Your task to perform on an android device: open app "Upside-Cash back on gas & food" (install if not already installed) and go to login screen Image 0: 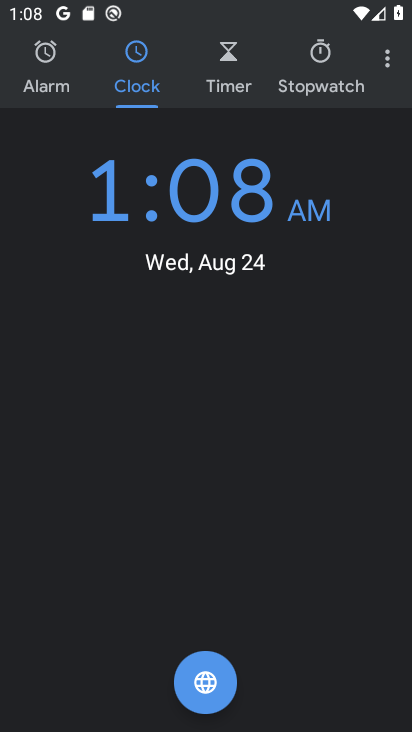
Step 0: press home button
Your task to perform on an android device: open app "Upside-Cash back on gas & food" (install if not already installed) and go to login screen Image 1: 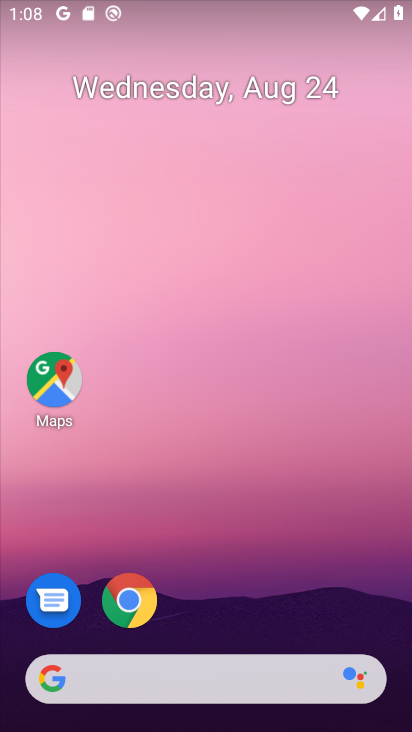
Step 1: drag from (210, 635) to (204, 52)
Your task to perform on an android device: open app "Upside-Cash back on gas & food" (install if not already installed) and go to login screen Image 2: 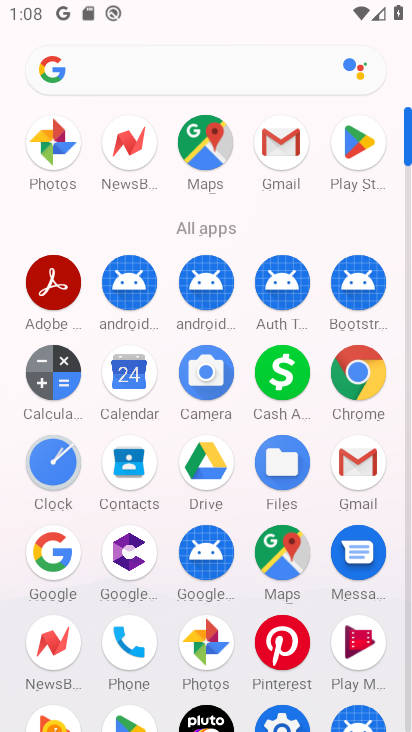
Step 2: click (357, 138)
Your task to perform on an android device: open app "Upside-Cash back on gas & food" (install if not already installed) and go to login screen Image 3: 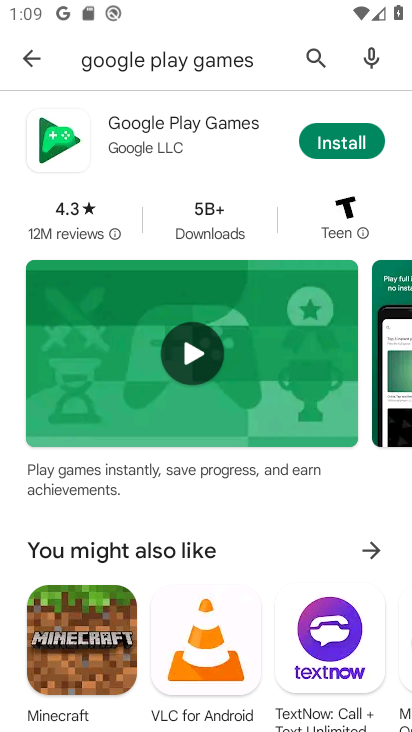
Step 3: click (314, 59)
Your task to perform on an android device: open app "Upside-Cash back on gas & food" (install if not already installed) and go to login screen Image 4: 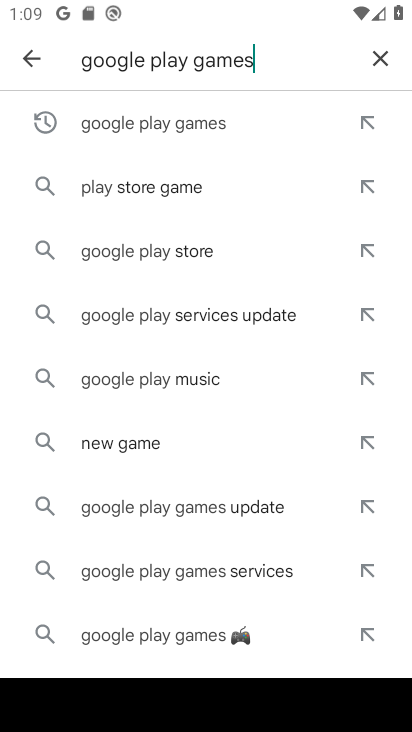
Step 4: click (175, 128)
Your task to perform on an android device: open app "Upside-Cash back on gas & food" (install if not already installed) and go to login screen Image 5: 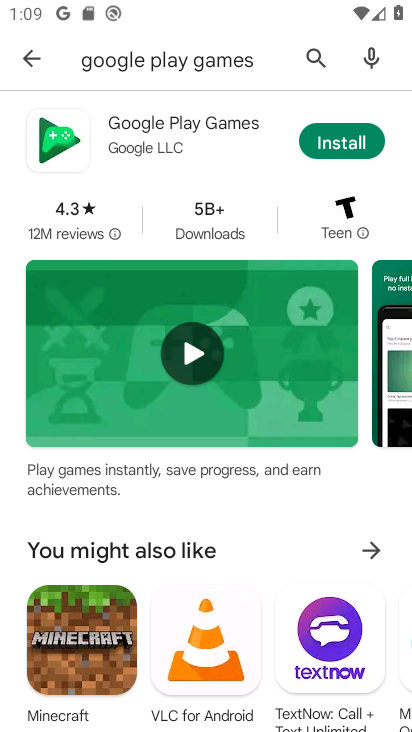
Step 5: click (316, 58)
Your task to perform on an android device: open app "Upside-Cash back on gas & food" (install if not already installed) and go to login screen Image 6: 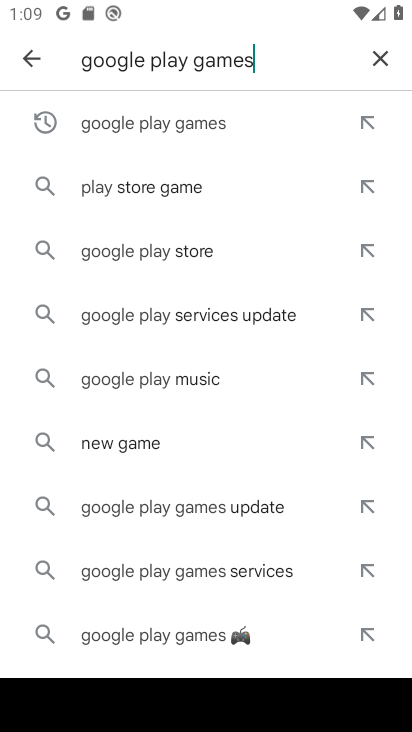
Step 6: click (377, 59)
Your task to perform on an android device: open app "Upside-Cash back on gas & food" (install if not already installed) and go to login screen Image 7: 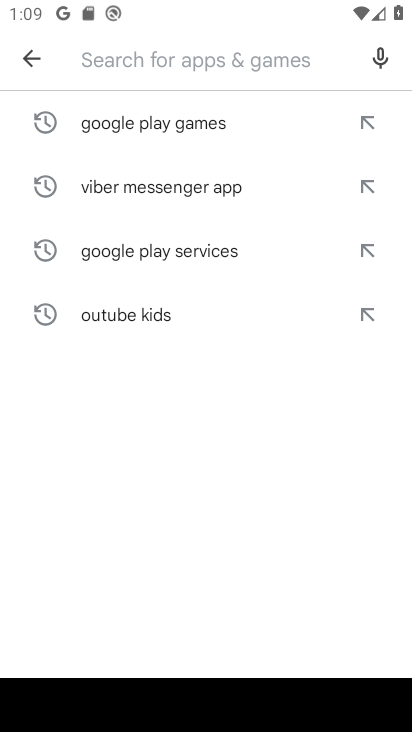
Step 7: type "Upside-Cash back on gas & food"
Your task to perform on an android device: open app "Upside-Cash back on gas & food" (install if not already installed) and go to login screen Image 8: 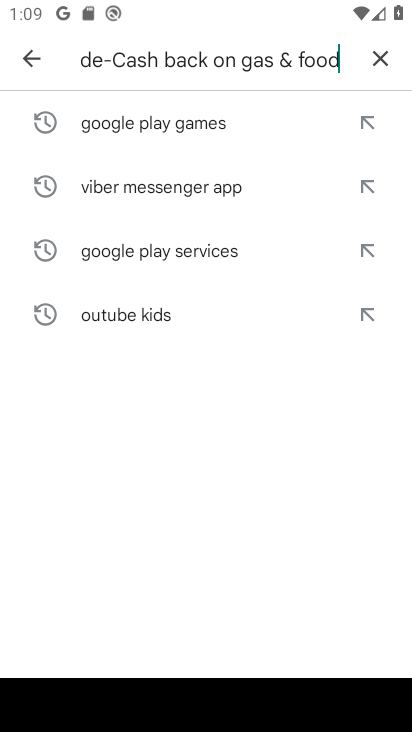
Step 8: type ""
Your task to perform on an android device: open app "Upside-Cash back on gas & food" (install if not already installed) and go to login screen Image 9: 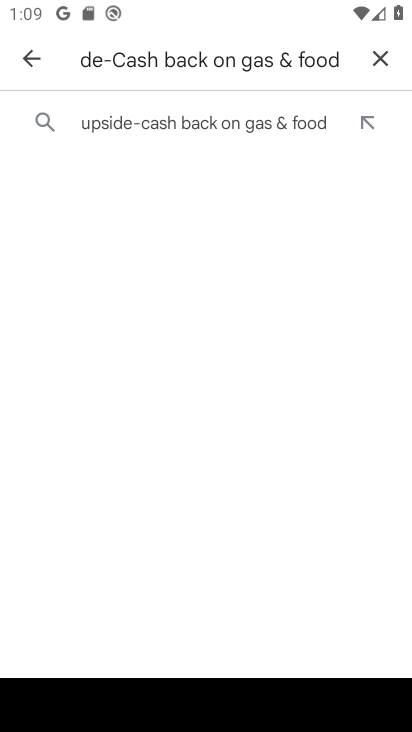
Step 9: click (303, 122)
Your task to perform on an android device: open app "Upside-Cash back on gas & food" (install if not already installed) and go to login screen Image 10: 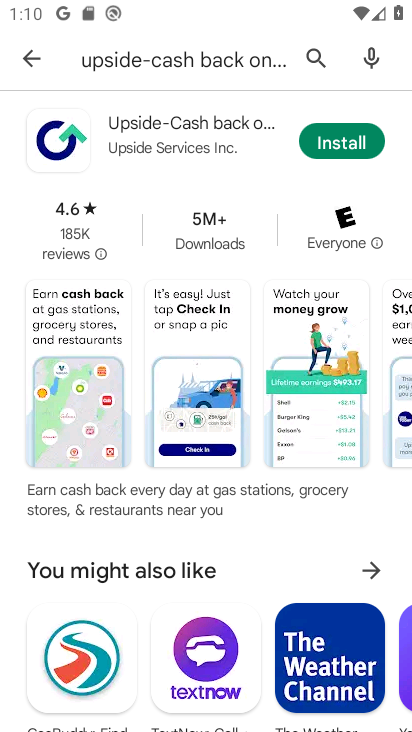
Step 10: click (347, 144)
Your task to perform on an android device: open app "Upside-Cash back on gas & food" (install if not already installed) and go to login screen Image 11: 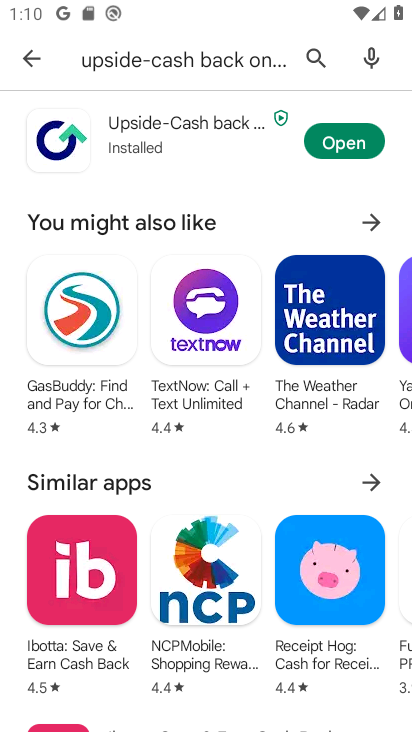
Step 11: click (349, 145)
Your task to perform on an android device: open app "Upside-Cash back on gas & food" (install if not already installed) and go to login screen Image 12: 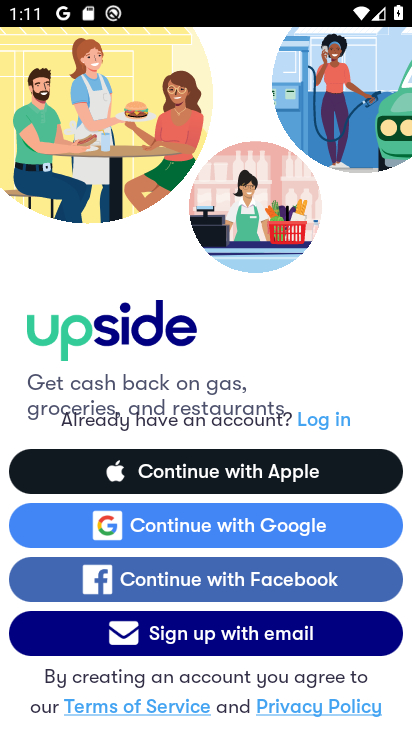
Step 12: task complete